Your task to perform on an android device: What is the recent news? Image 0: 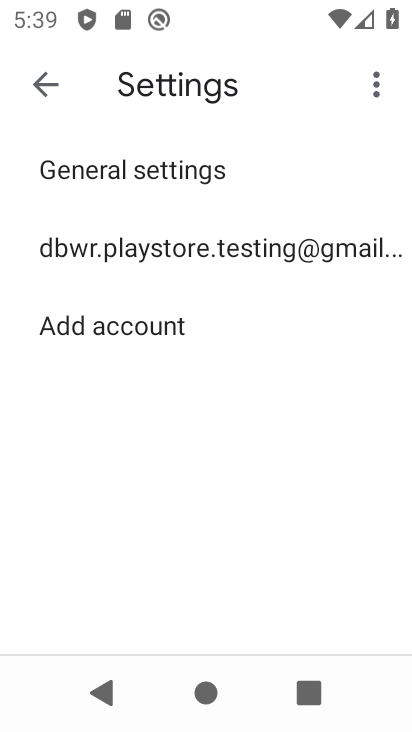
Step 0: press home button
Your task to perform on an android device: What is the recent news? Image 1: 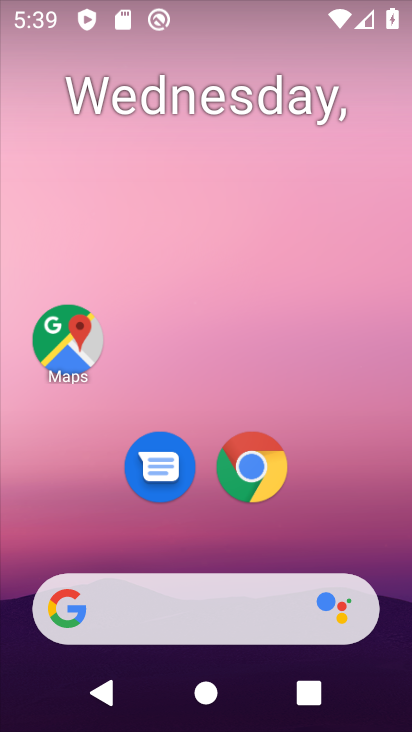
Step 1: drag from (301, 536) to (334, 68)
Your task to perform on an android device: What is the recent news? Image 2: 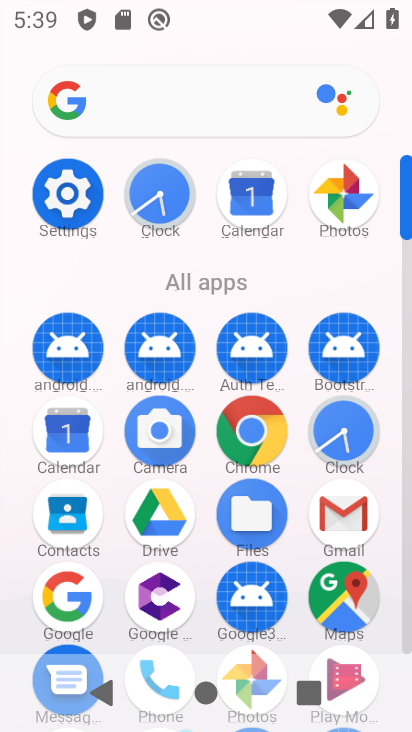
Step 2: click (247, 428)
Your task to perform on an android device: What is the recent news? Image 3: 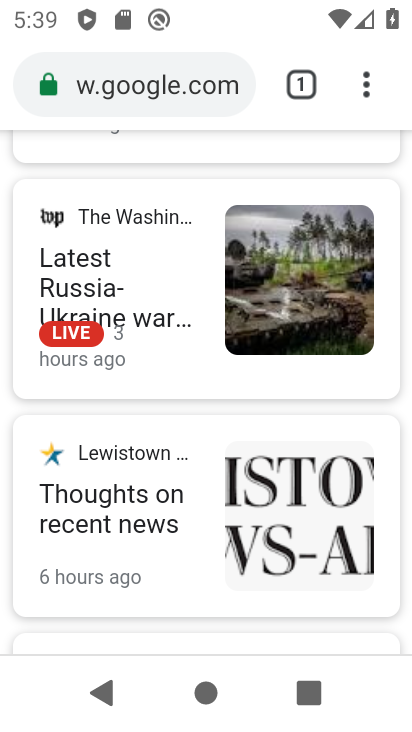
Step 3: click (167, 87)
Your task to perform on an android device: What is the recent news? Image 4: 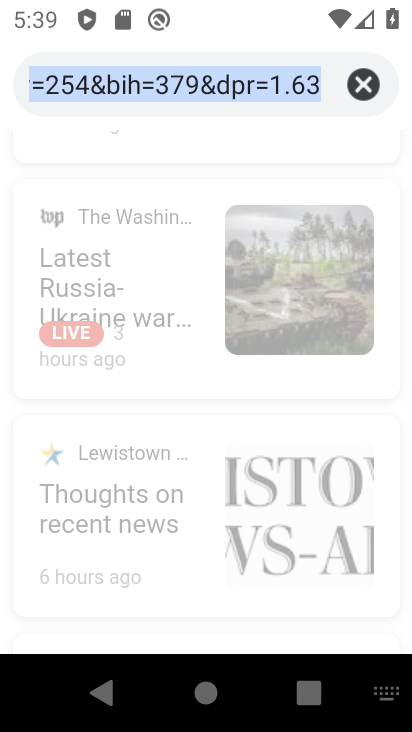
Step 4: click (371, 82)
Your task to perform on an android device: What is the recent news? Image 5: 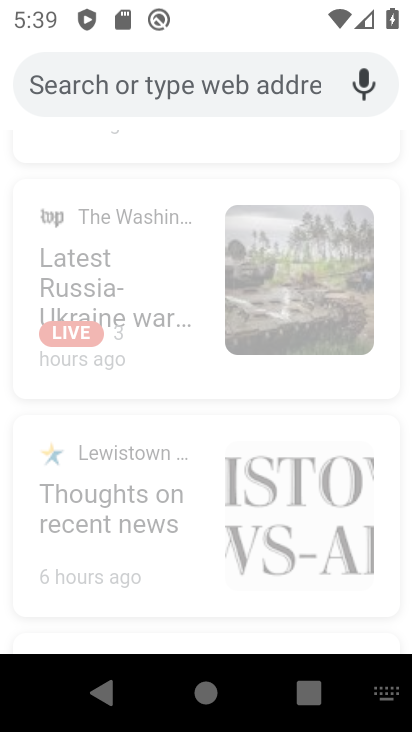
Step 5: type "What is the recent news?"
Your task to perform on an android device: What is the recent news? Image 6: 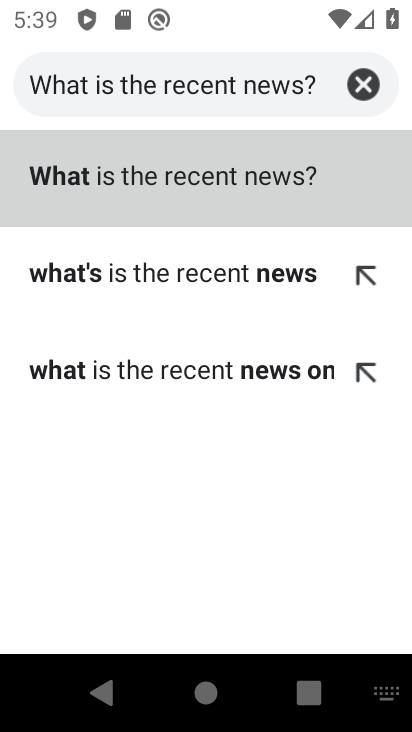
Step 6: click (158, 175)
Your task to perform on an android device: What is the recent news? Image 7: 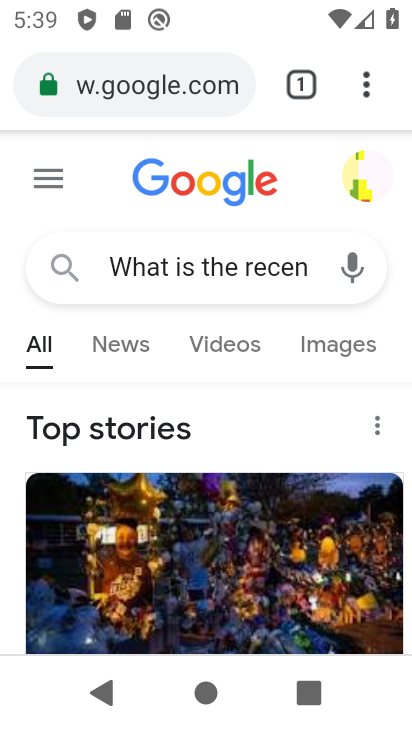
Step 7: click (100, 323)
Your task to perform on an android device: What is the recent news? Image 8: 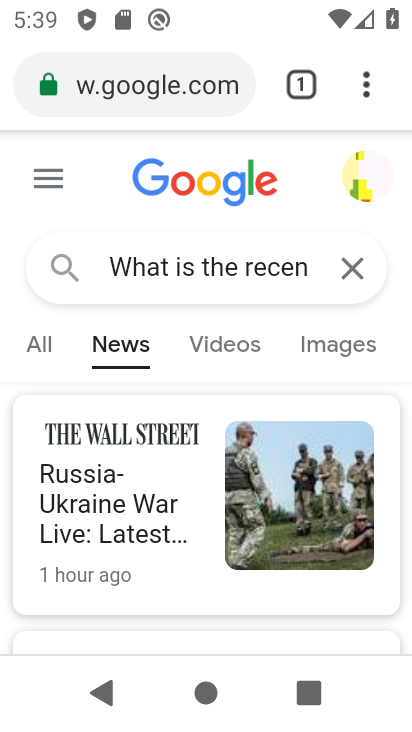
Step 8: task complete